Your task to perform on an android device: turn off improve location accuracy Image 0: 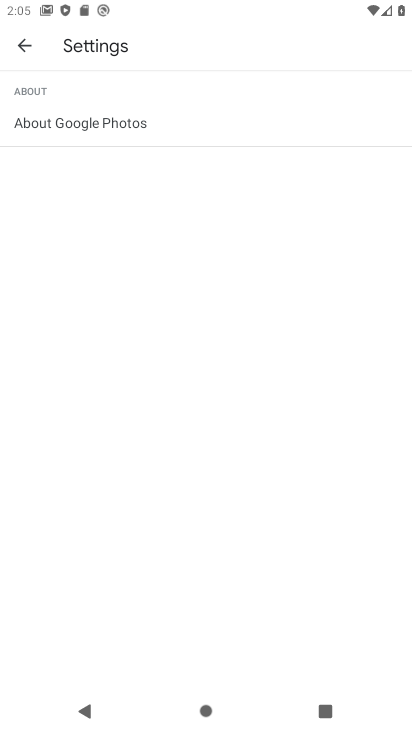
Step 0: press home button
Your task to perform on an android device: turn off improve location accuracy Image 1: 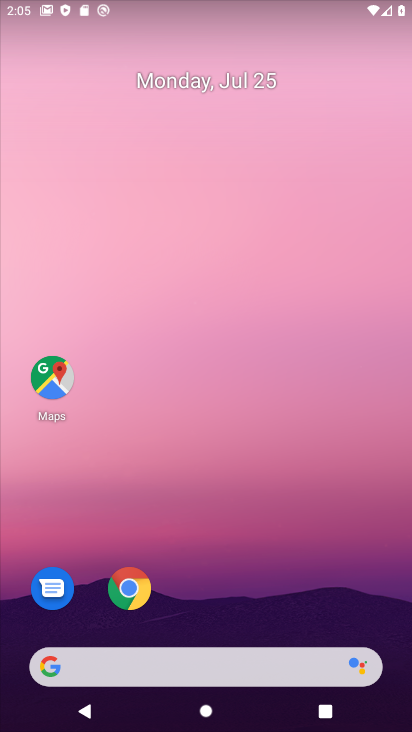
Step 1: drag from (213, 595) to (213, 75)
Your task to perform on an android device: turn off improve location accuracy Image 2: 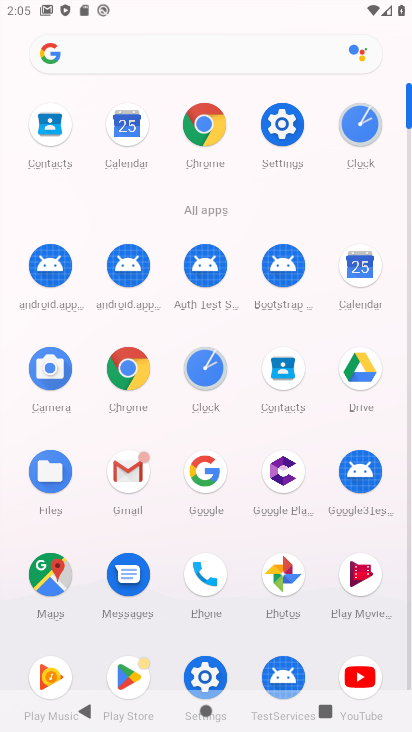
Step 2: click (297, 117)
Your task to perform on an android device: turn off improve location accuracy Image 3: 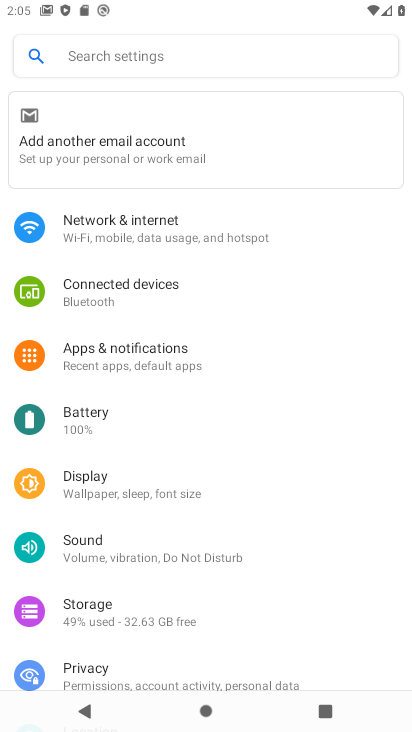
Step 3: drag from (152, 598) to (205, 279)
Your task to perform on an android device: turn off improve location accuracy Image 4: 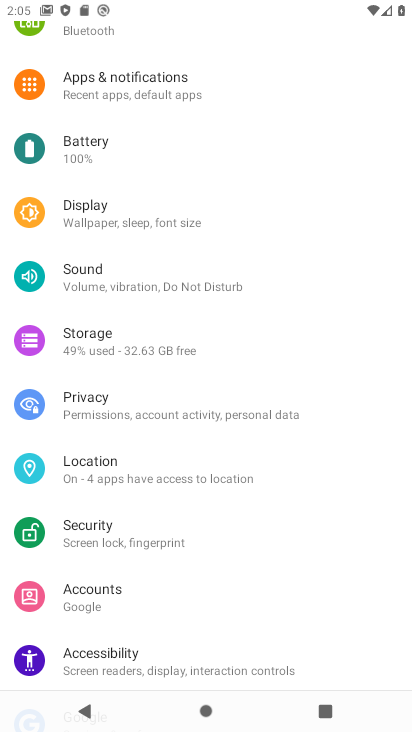
Step 4: click (151, 463)
Your task to perform on an android device: turn off improve location accuracy Image 5: 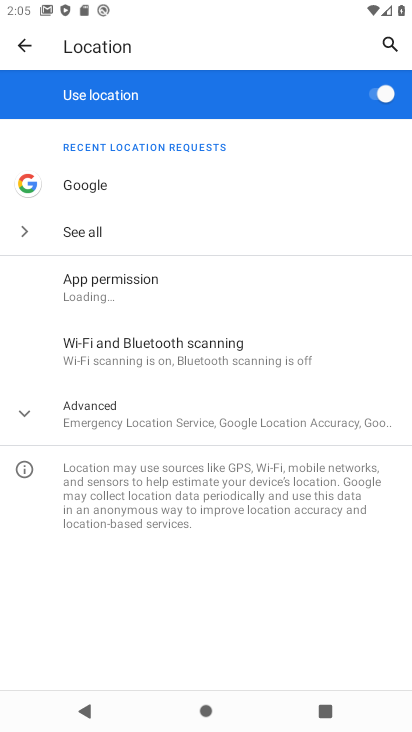
Step 5: click (210, 419)
Your task to perform on an android device: turn off improve location accuracy Image 6: 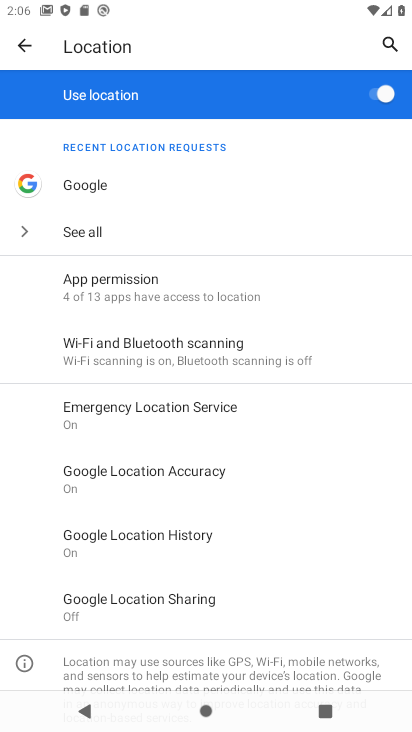
Step 6: click (223, 490)
Your task to perform on an android device: turn off improve location accuracy Image 7: 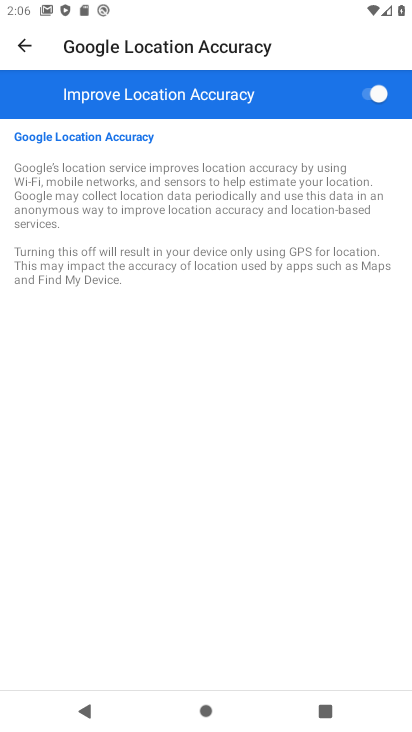
Step 7: click (367, 104)
Your task to perform on an android device: turn off improve location accuracy Image 8: 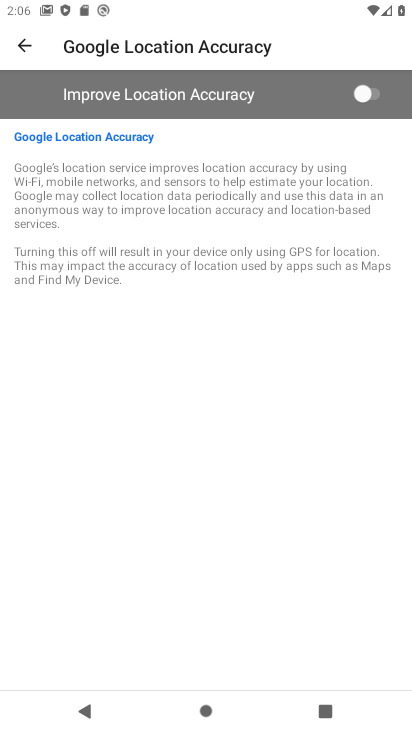
Step 8: task complete